Your task to perform on an android device: turn on wifi Image 0: 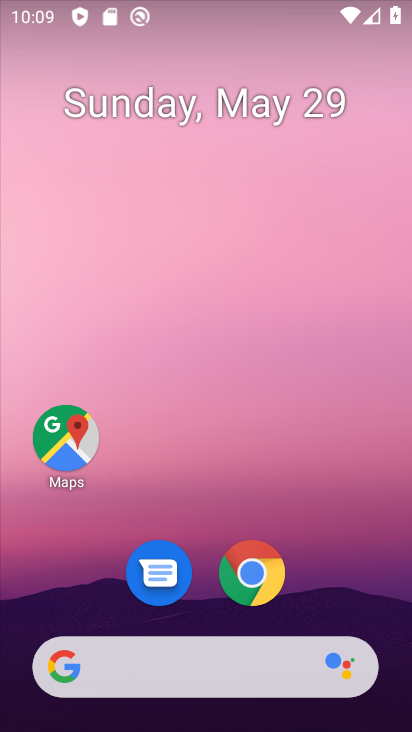
Step 0: drag from (82, 629) to (192, 162)
Your task to perform on an android device: turn on wifi Image 1: 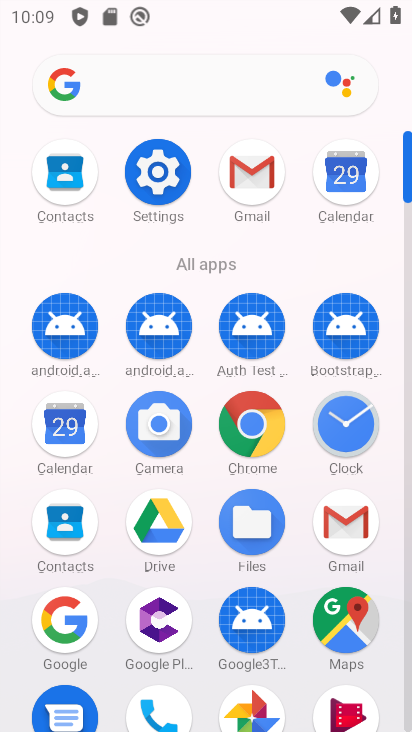
Step 1: drag from (174, 611) to (232, 386)
Your task to perform on an android device: turn on wifi Image 2: 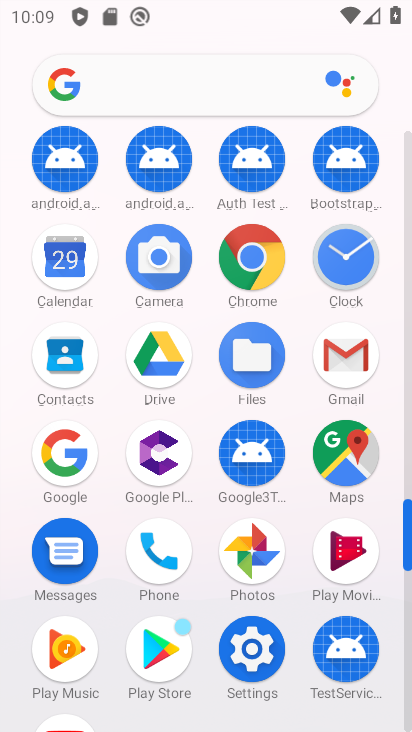
Step 2: click (254, 649)
Your task to perform on an android device: turn on wifi Image 3: 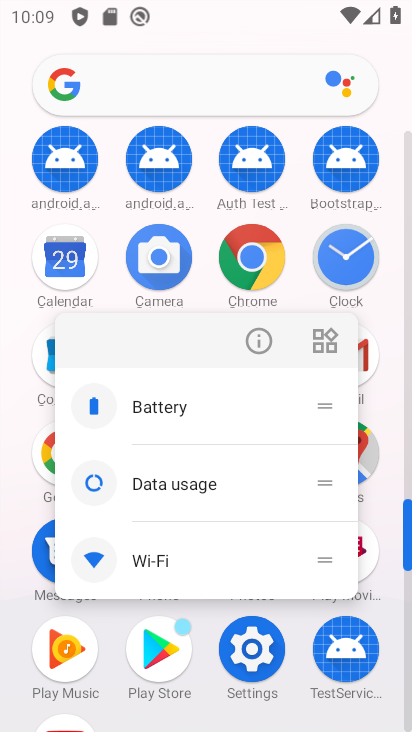
Step 3: click (253, 662)
Your task to perform on an android device: turn on wifi Image 4: 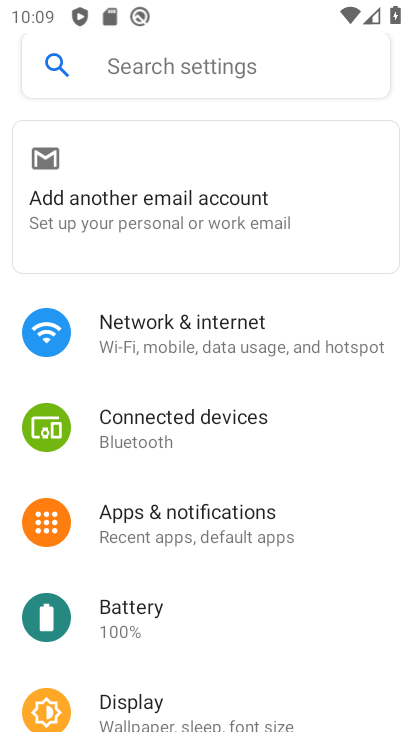
Step 4: click (234, 345)
Your task to perform on an android device: turn on wifi Image 5: 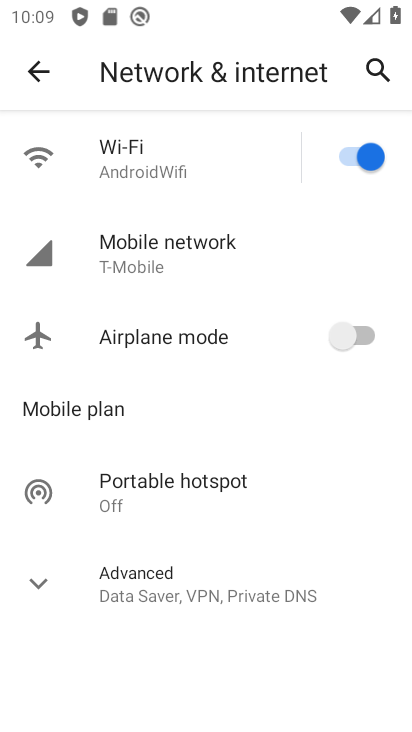
Step 5: task complete